Your task to perform on an android device: check data usage Image 0: 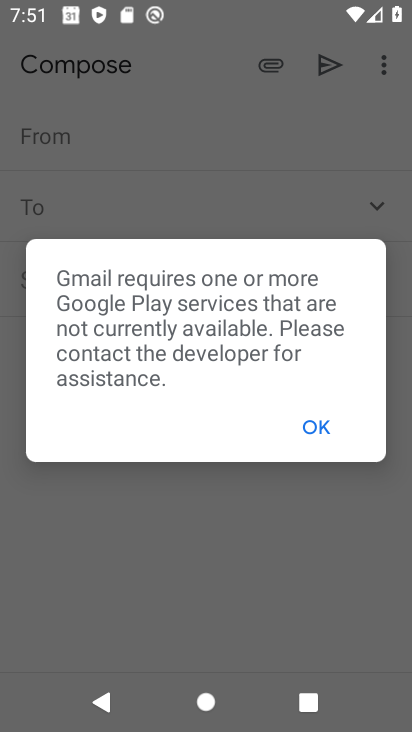
Step 0: press home button
Your task to perform on an android device: check data usage Image 1: 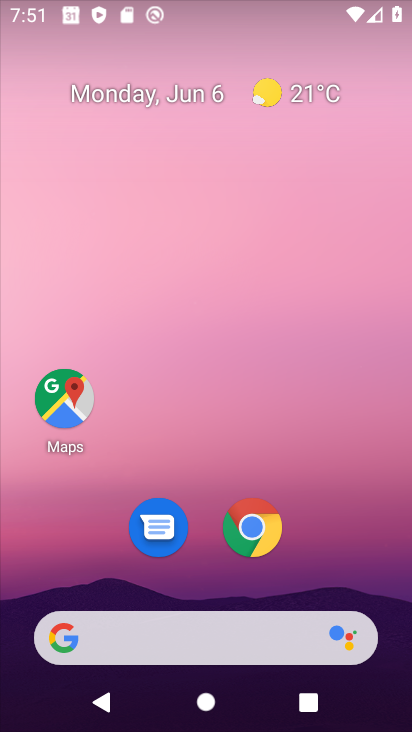
Step 1: drag from (235, 527) to (255, 191)
Your task to perform on an android device: check data usage Image 2: 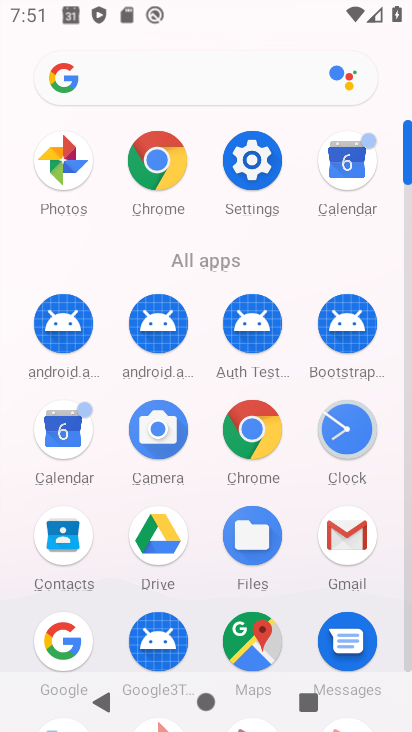
Step 2: click (262, 162)
Your task to perform on an android device: check data usage Image 3: 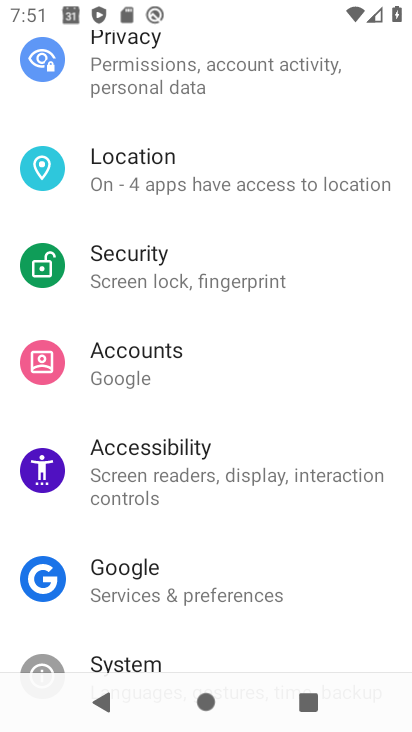
Step 3: drag from (219, 305) to (209, 482)
Your task to perform on an android device: check data usage Image 4: 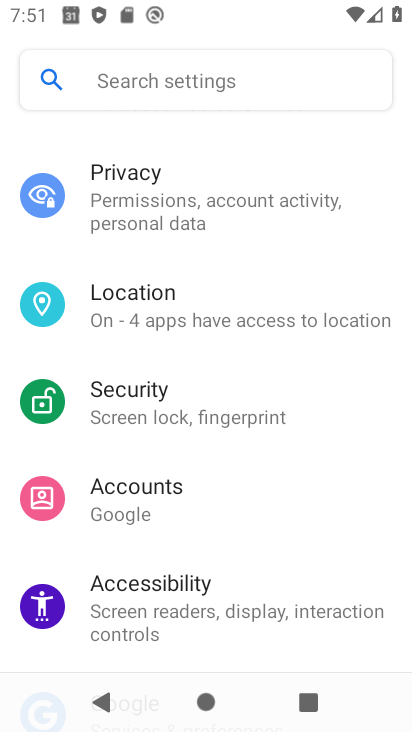
Step 4: drag from (212, 236) to (199, 486)
Your task to perform on an android device: check data usage Image 5: 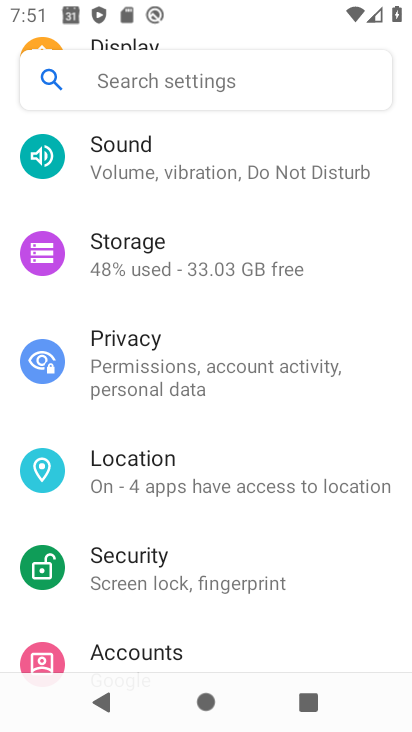
Step 5: drag from (262, 320) to (237, 502)
Your task to perform on an android device: check data usage Image 6: 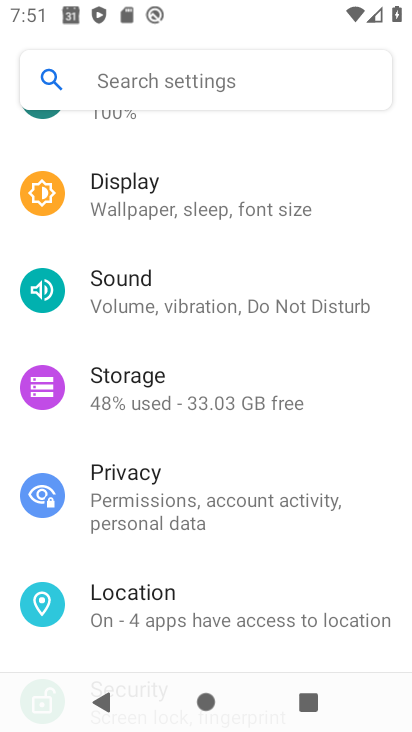
Step 6: drag from (218, 368) to (217, 577)
Your task to perform on an android device: check data usage Image 7: 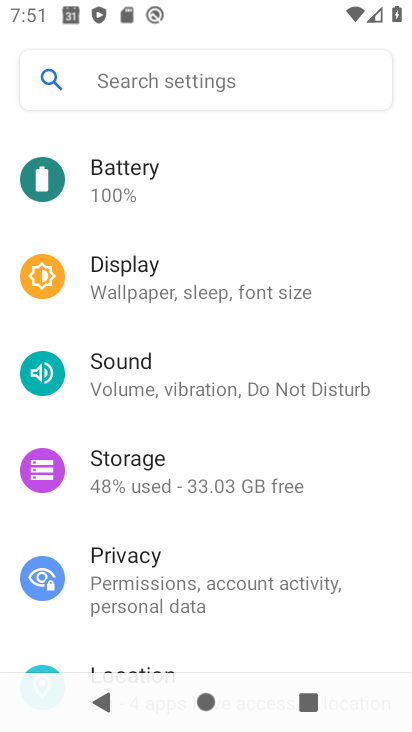
Step 7: drag from (211, 379) to (197, 692)
Your task to perform on an android device: check data usage Image 8: 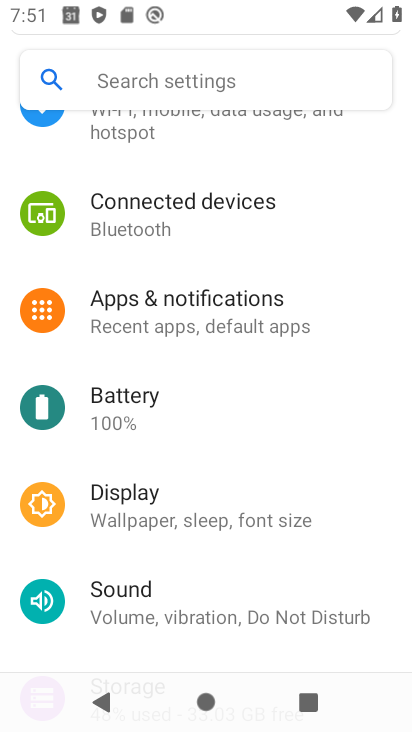
Step 8: drag from (155, 361) to (152, 729)
Your task to perform on an android device: check data usage Image 9: 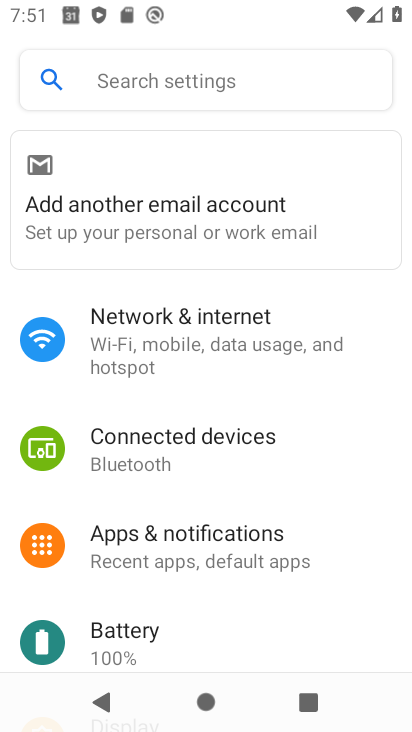
Step 9: click (228, 330)
Your task to perform on an android device: check data usage Image 10: 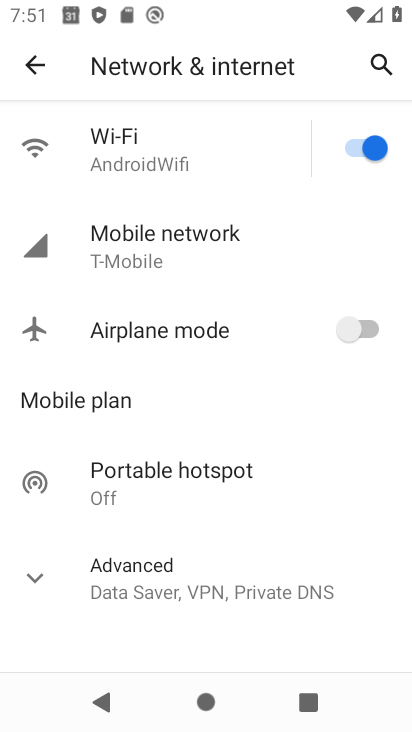
Step 10: click (249, 241)
Your task to perform on an android device: check data usage Image 11: 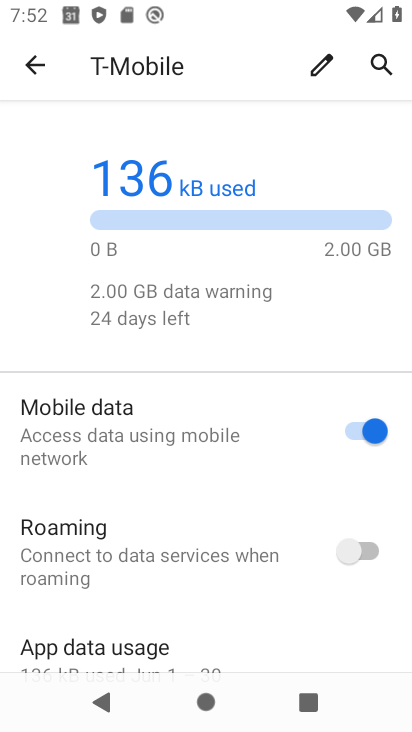
Step 11: drag from (226, 511) to (242, 152)
Your task to perform on an android device: check data usage Image 12: 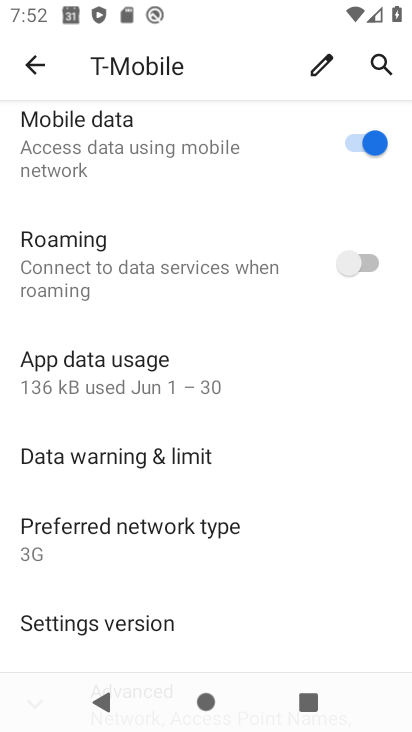
Step 12: click (197, 376)
Your task to perform on an android device: check data usage Image 13: 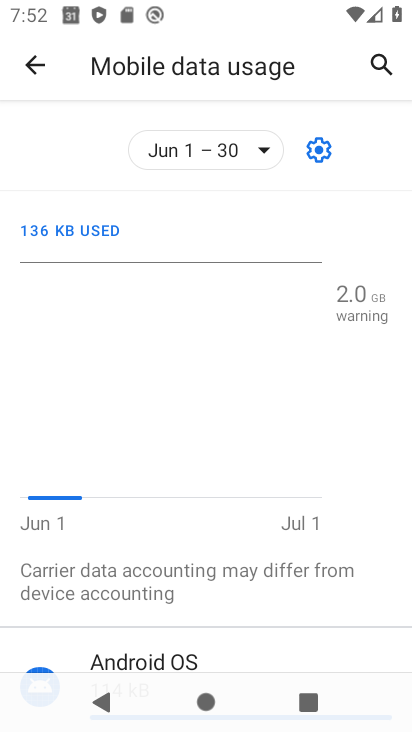
Step 13: task complete